Your task to perform on an android device: change the clock display to analog Image 0: 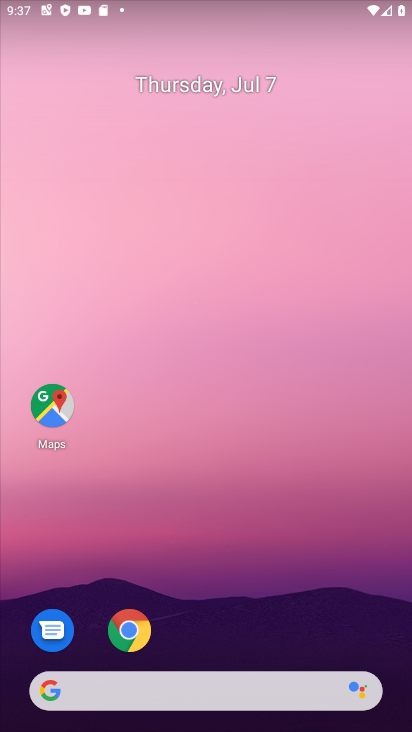
Step 0: drag from (231, 622) to (207, 186)
Your task to perform on an android device: change the clock display to analog Image 1: 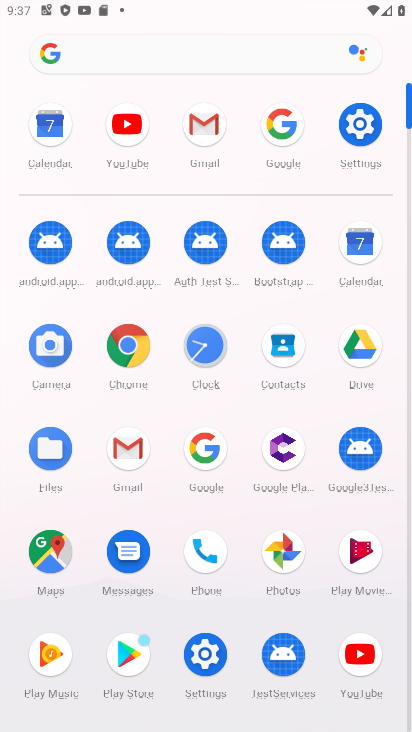
Step 1: click (197, 349)
Your task to perform on an android device: change the clock display to analog Image 2: 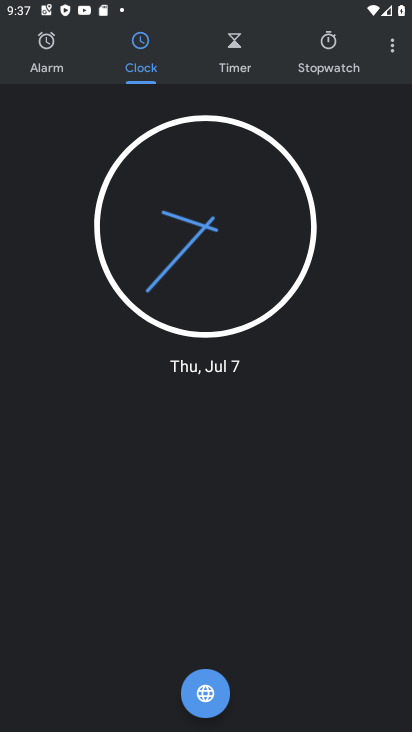
Step 2: click (391, 47)
Your task to perform on an android device: change the clock display to analog Image 3: 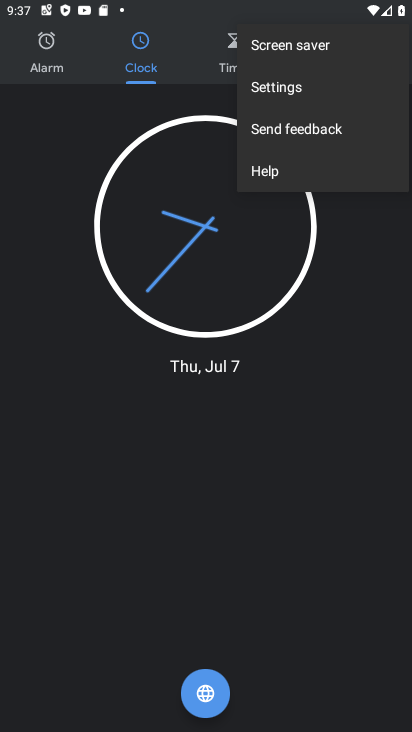
Step 3: click (319, 85)
Your task to perform on an android device: change the clock display to analog Image 4: 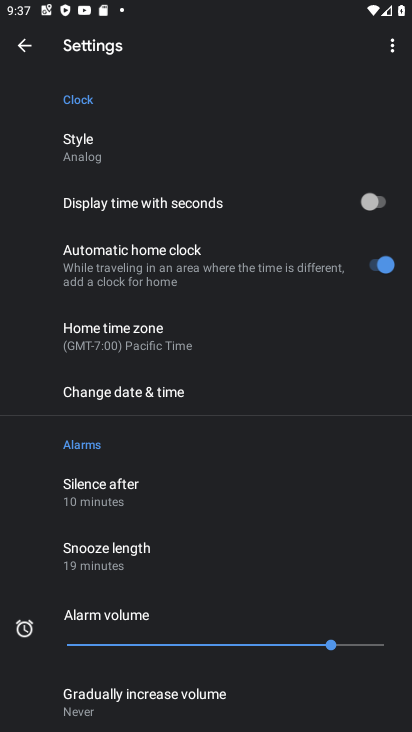
Step 4: click (125, 146)
Your task to perform on an android device: change the clock display to analog Image 5: 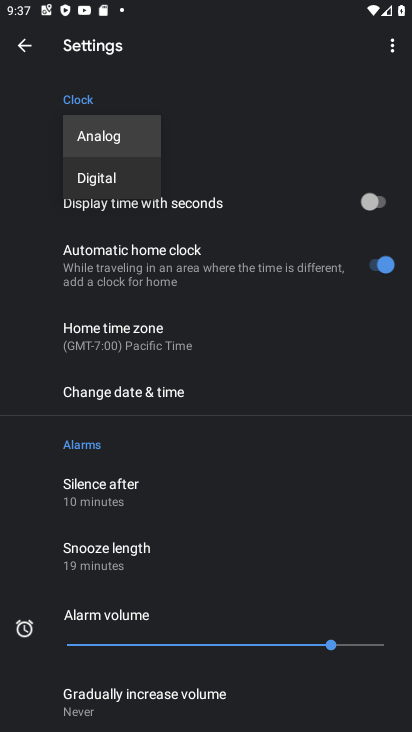
Step 5: task complete